Your task to perform on an android device: Check the weather Image 0: 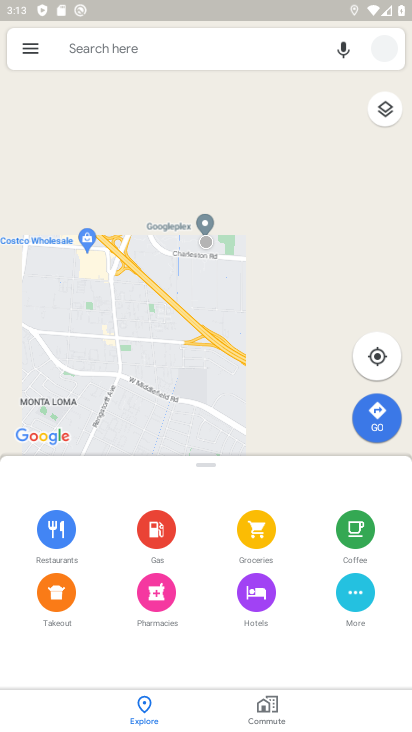
Step 0: press home button
Your task to perform on an android device: Check the weather Image 1: 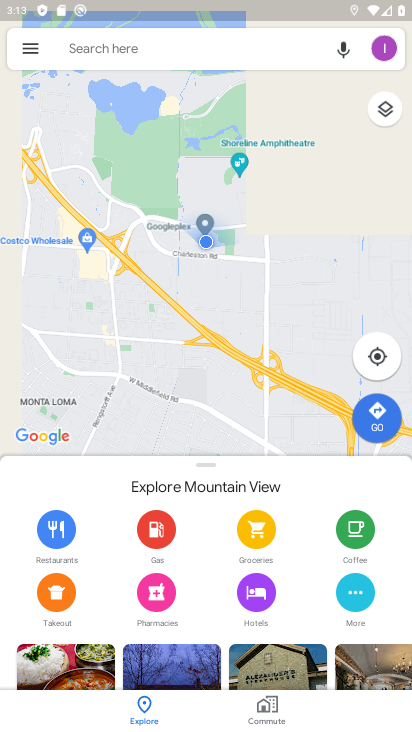
Step 1: press home button
Your task to perform on an android device: Check the weather Image 2: 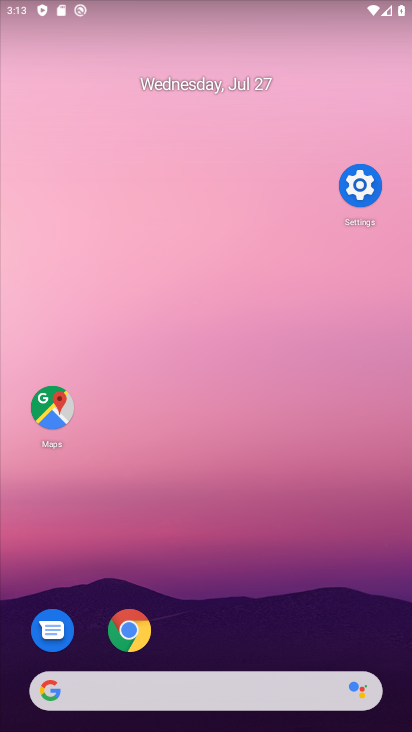
Step 2: click (47, 690)
Your task to perform on an android device: Check the weather Image 3: 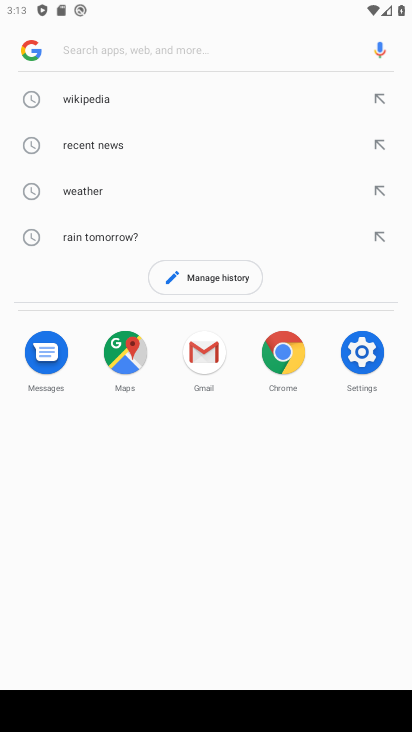
Step 3: click (86, 187)
Your task to perform on an android device: Check the weather Image 4: 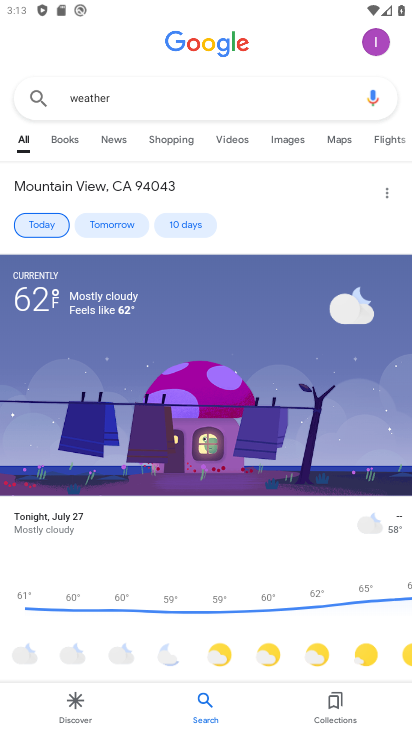
Step 4: task complete